Your task to perform on an android device: open device folders in google photos Image 0: 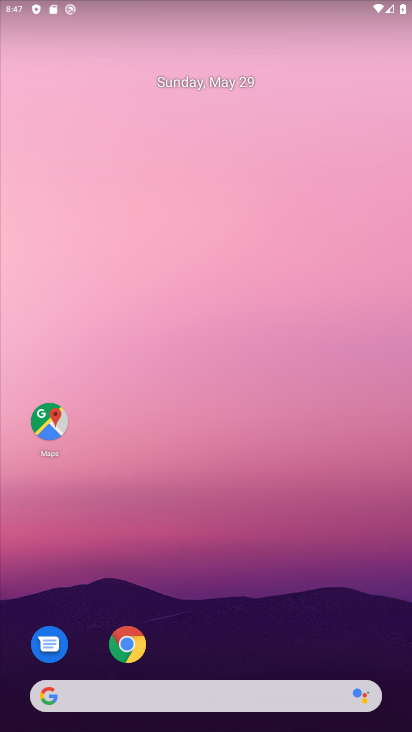
Step 0: drag from (235, 502) to (200, 0)
Your task to perform on an android device: open device folders in google photos Image 1: 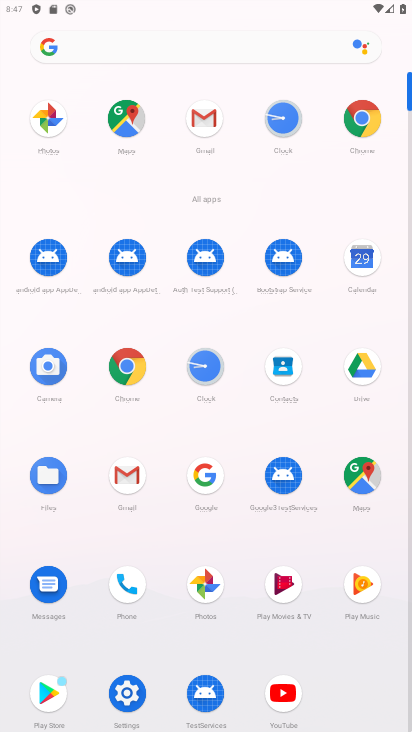
Step 1: drag from (10, 552) to (9, 246)
Your task to perform on an android device: open device folders in google photos Image 2: 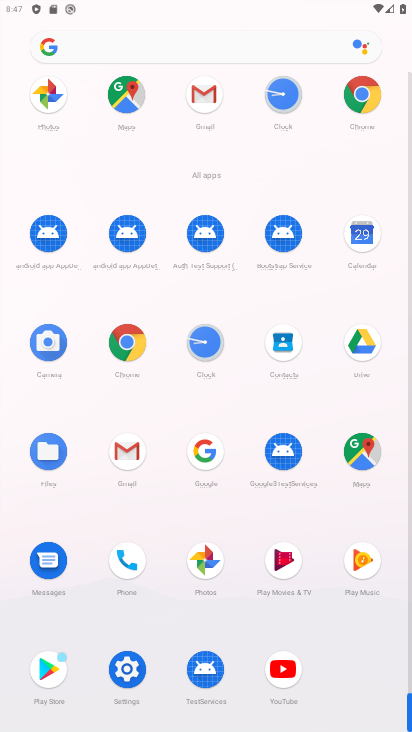
Step 2: click (204, 558)
Your task to perform on an android device: open device folders in google photos Image 3: 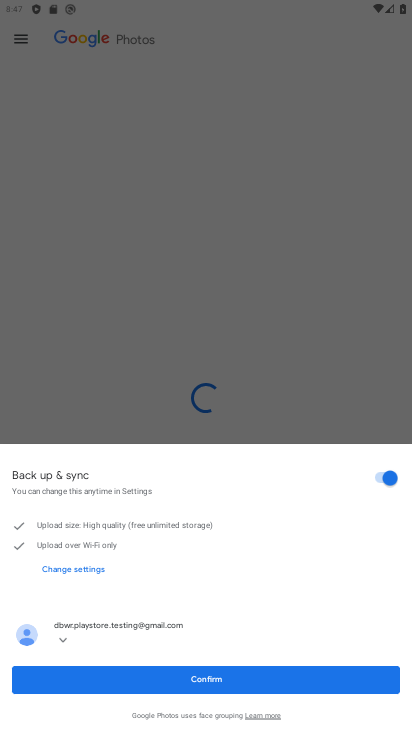
Step 3: click (196, 673)
Your task to perform on an android device: open device folders in google photos Image 4: 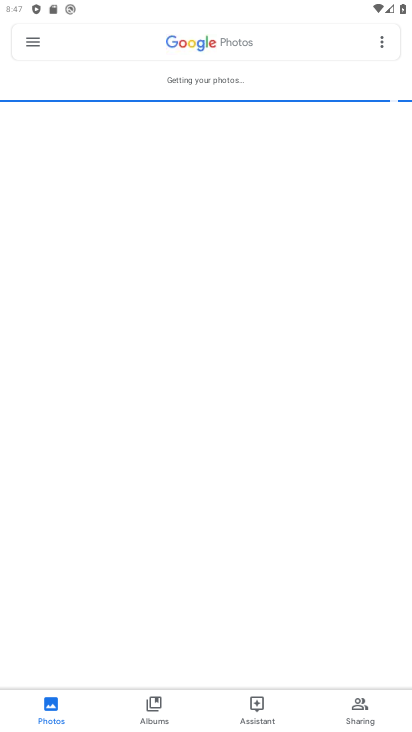
Step 4: click (12, 33)
Your task to perform on an android device: open device folders in google photos Image 5: 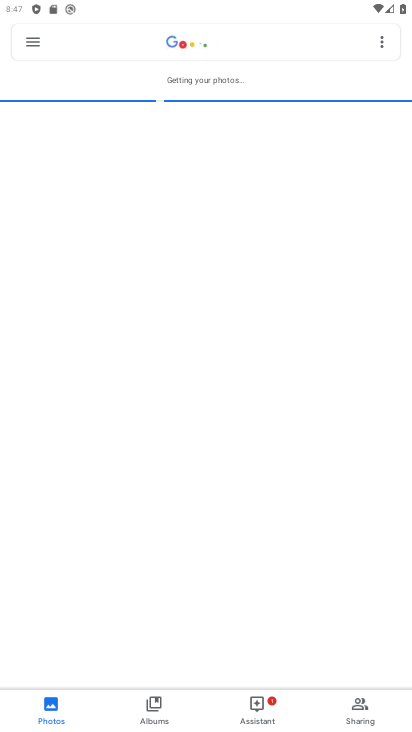
Step 5: click (20, 38)
Your task to perform on an android device: open device folders in google photos Image 6: 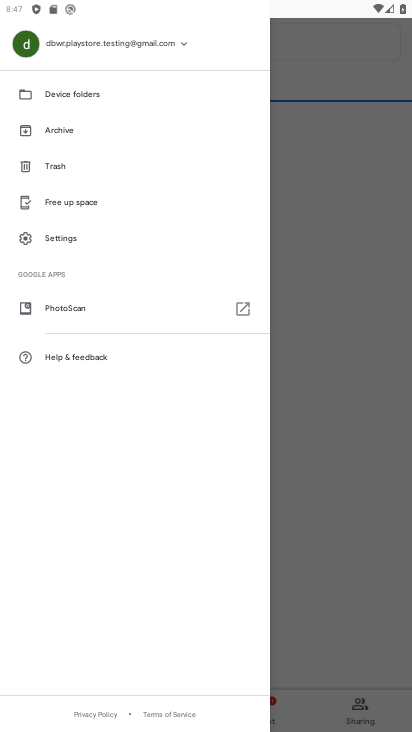
Step 6: click (105, 96)
Your task to perform on an android device: open device folders in google photos Image 7: 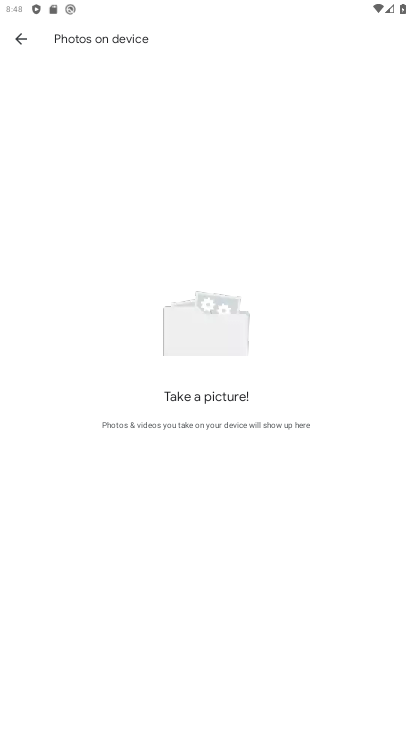
Step 7: task complete